Your task to perform on an android device: Go to eBay Image 0: 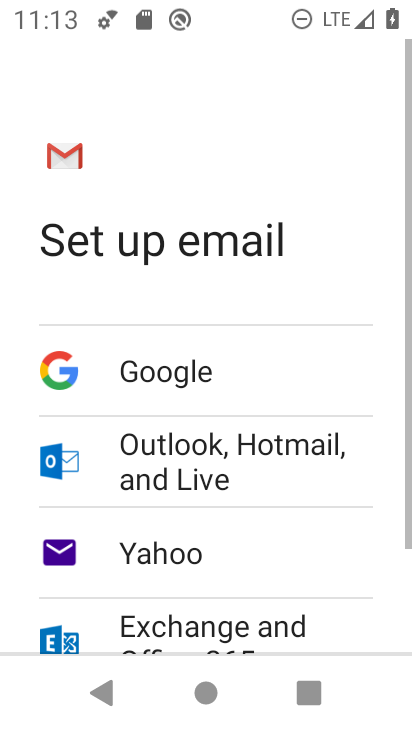
Step 0: press home button
Your task to perform on an android device: Go to eBay Image 1: 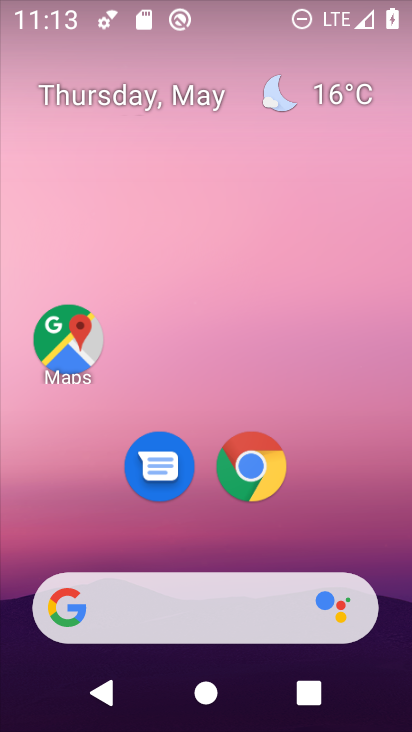
Step 1: click (254, 469)
Your task to perform on an android device: Go to eBay Image 2: 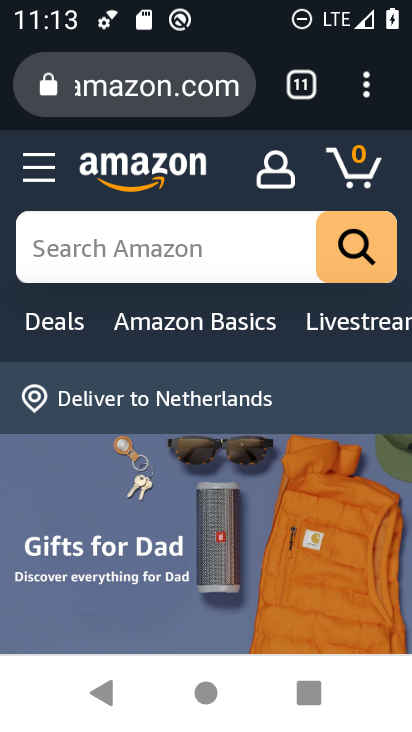
Step 2: click (389, 86)
Your task to perform on an android device: Go to eBay Image 3: 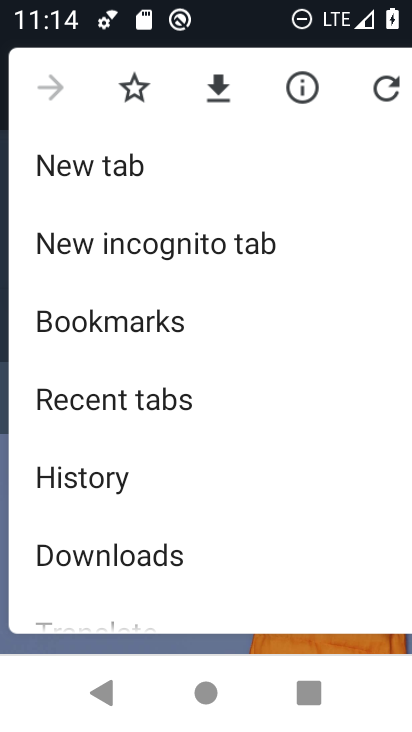
Step 3: click (92, 159)
Your task to perform on an android device: Go to eBay Image 4: 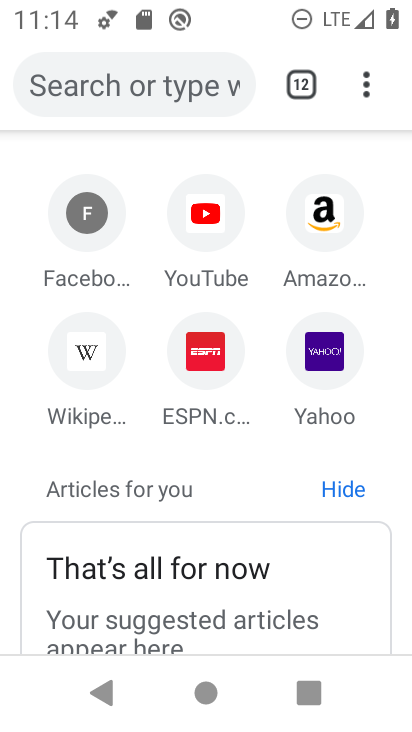
Step 4: click (201, 78)
Your task to perform on an android device: Go to eBay Image 5: 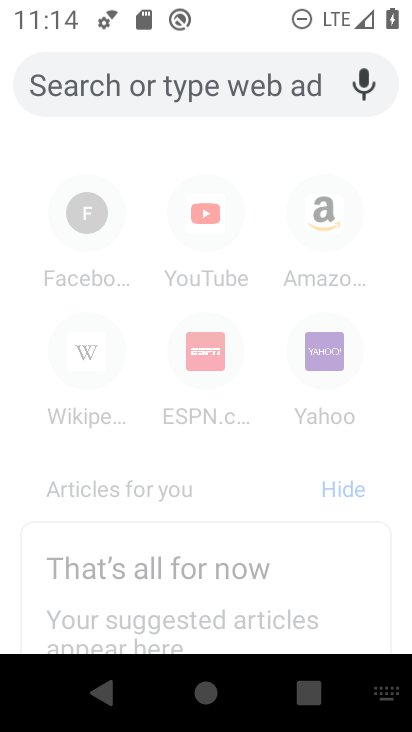
Step 5: type "eBay"
Your task to perform on an android device: Go to eBay Image 6: 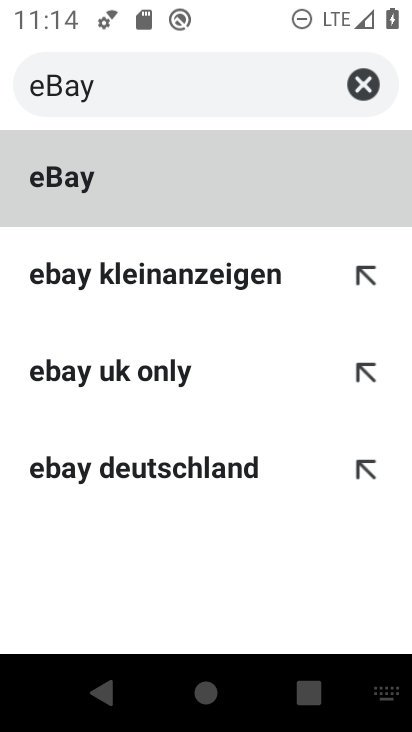
Step 6: click (99, 167)
Your task to perform on an android device: Go to eBay Image 7: 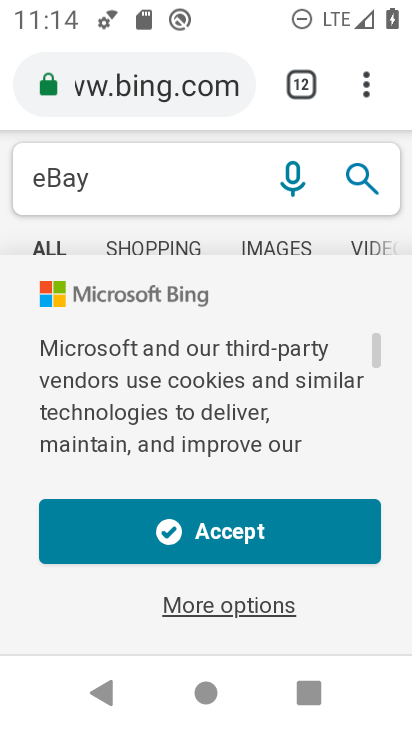
Step 7: task complete